Your task to perform on an android device: turn off sleep mode Image 0: 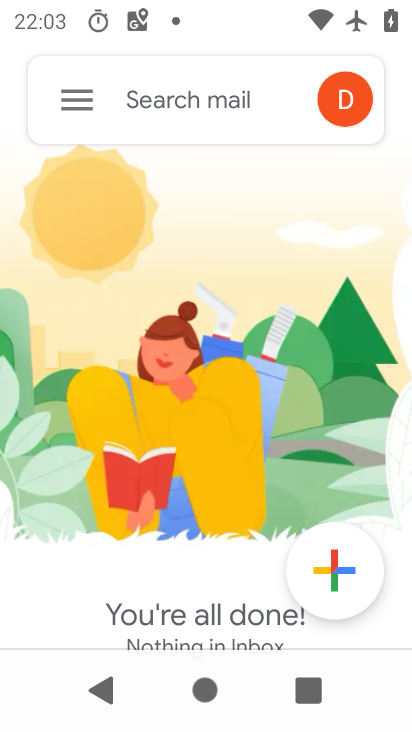
Step 0: press home button
Your task to perform on an android device: turn off sleep mode Image 1: 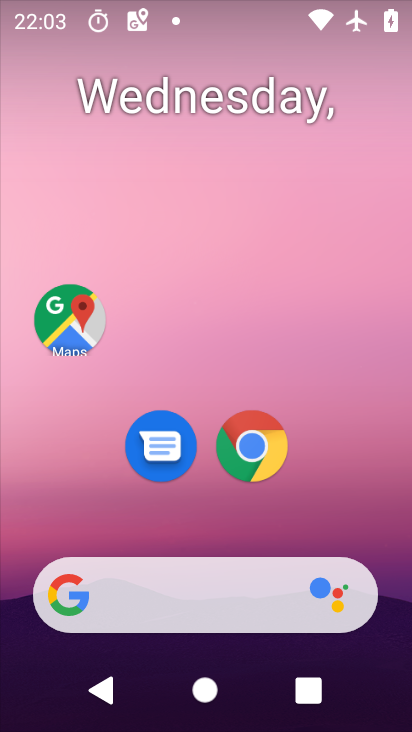
Step 1: drag from (201, 605) to (366, 46)
Your task to perform on an android device: turn off sleep mode Image 2: 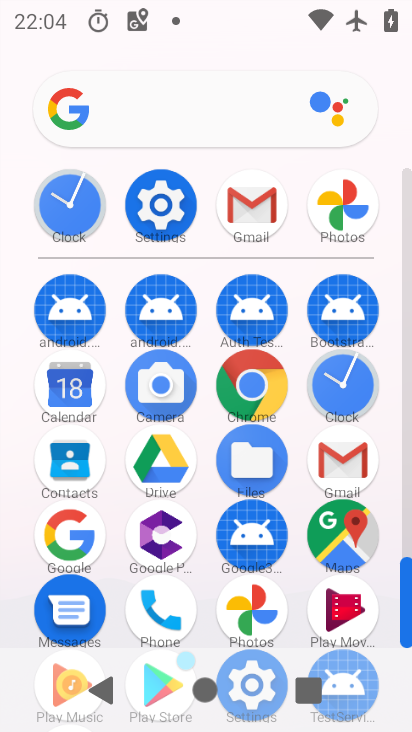
Step 2: click (170, 221)
Your task to perform on an android device: turn off sleep mode Image 3: 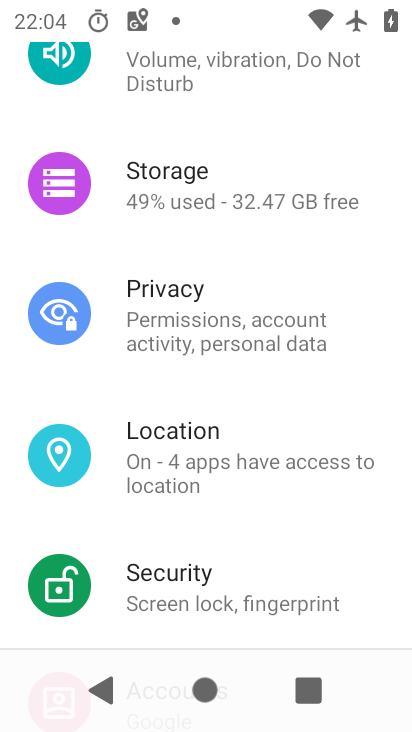
Step 3: drag from (302, 134) to (232, 557)
Your task to perform on an android device: turn off sleep mode Image 4: 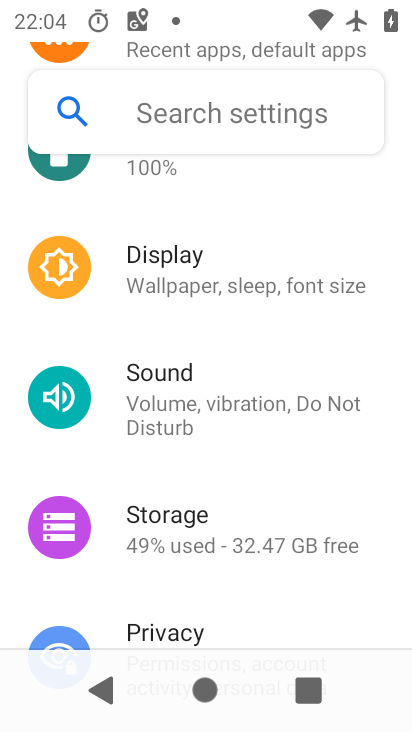
Step 4: click (278, 285)
Your task to perform on an android device: turn off sleep mode Image 5: 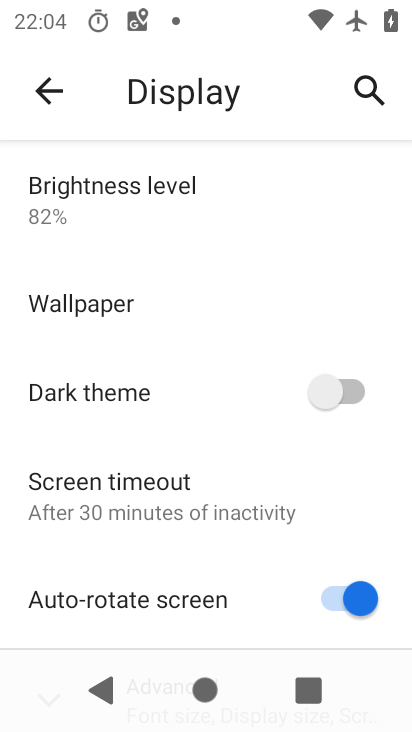
Step 5: task complete